Your task to perform on an android device: add a contact Image 0: 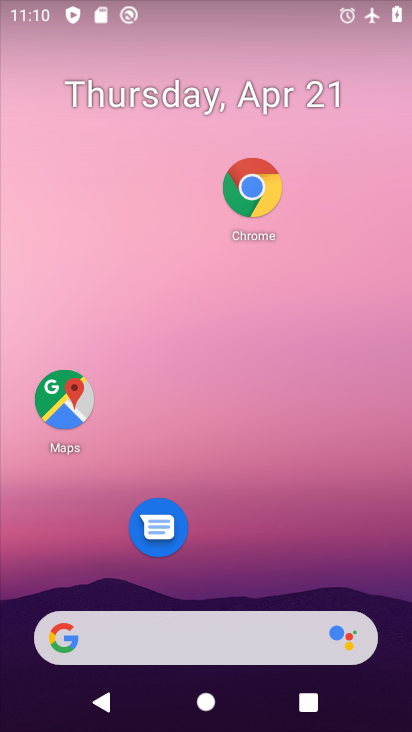
Step 0: drag from (209, 634) to (332, 100)
Your task to perform on an android device: add a contact Image 1: 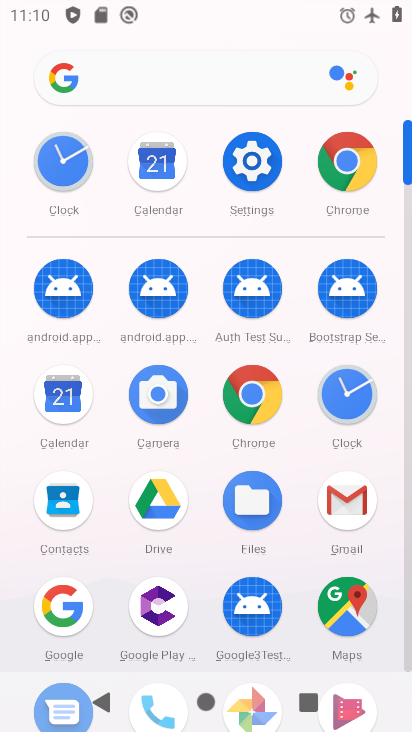
Step 1: click (62, 509)
Your task to perform on an android device: add a contact Image 2: 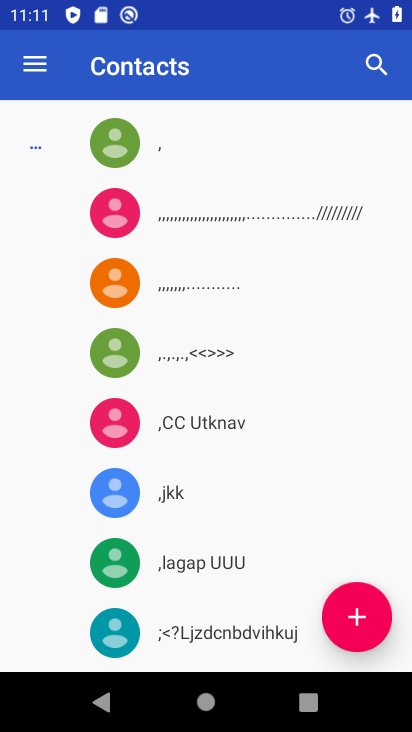
Step 2: click (368, 610)
Your task to perform on an android device: add a contact Image 3: 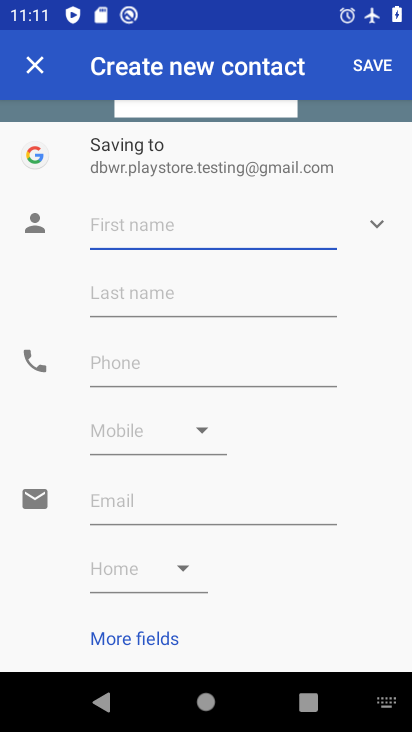
Step 3: type "hvhjvkj"
Your task to perform on an android device: add a contact Image 4: 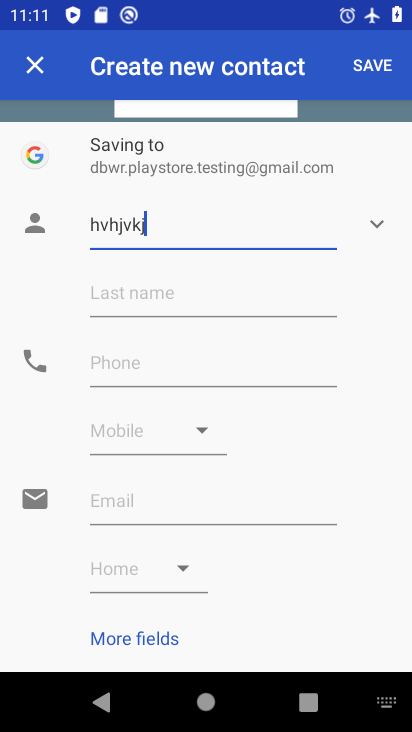
Step 4: click (161, 368)
Your task to perform on an android device: add a contact Image 5: 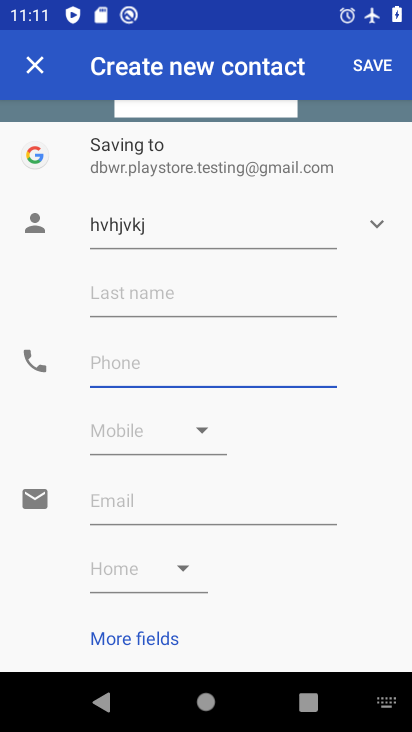
Step 5: type "86866896"
Your task to perform on an android device: add a contact Image 6: 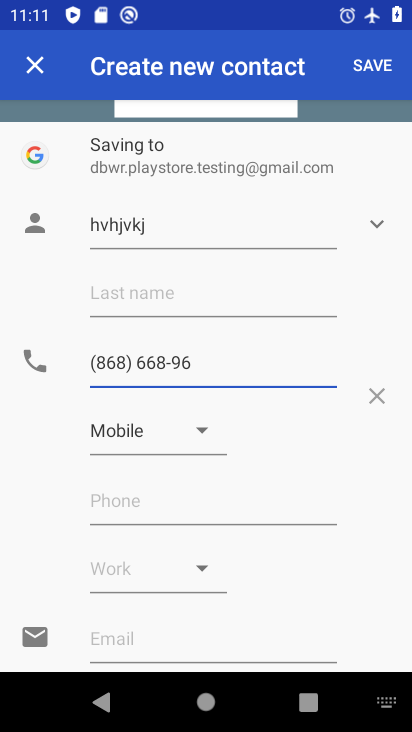
Step 6: click (381, 62)
Your task to perform on an android device: add a contact Image 7: 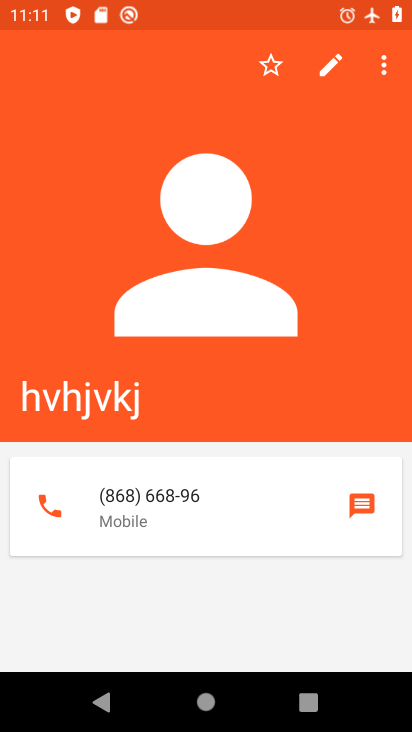
Step 7: task complete